Your task to perform on an android device: Show me popular videos on Youtube Image 0: 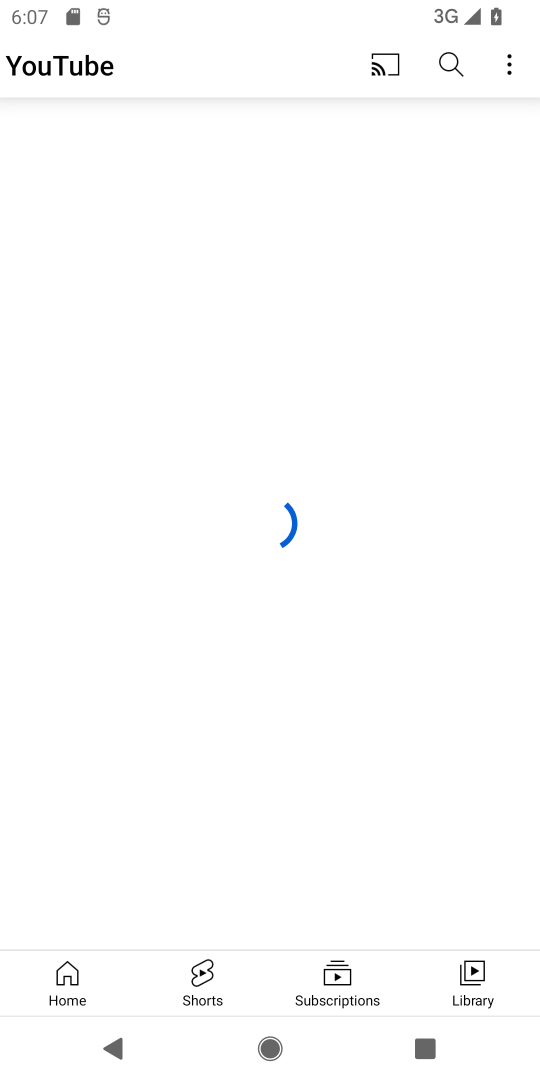
Step 0: press home button
Your task to perform on an android device: Show me popular videos on Youtube Image 1: 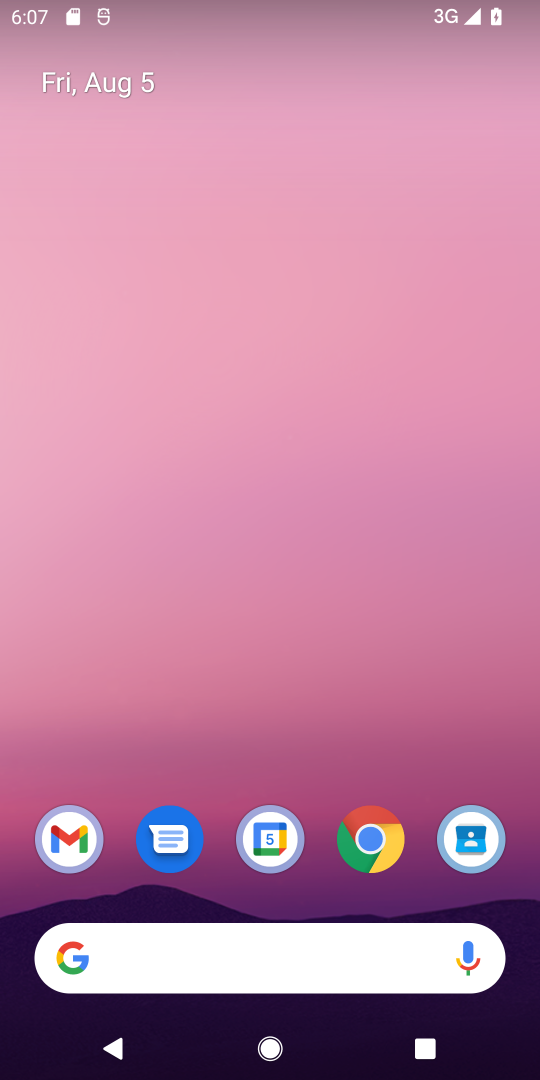
Step 1: drag from (300, 769) to (267, 170)
Your task to perform on an android device: Show me popular videos on Youtube Image 2: 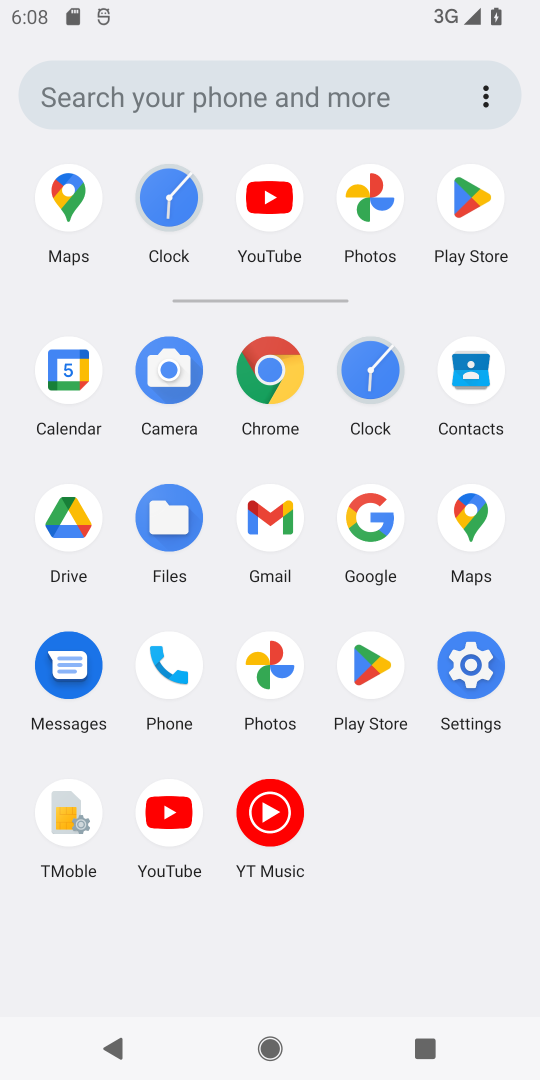
Step 2: click (138, 828)
Your task to perform on an android device: Show me popular videos on Youtube Image 3: 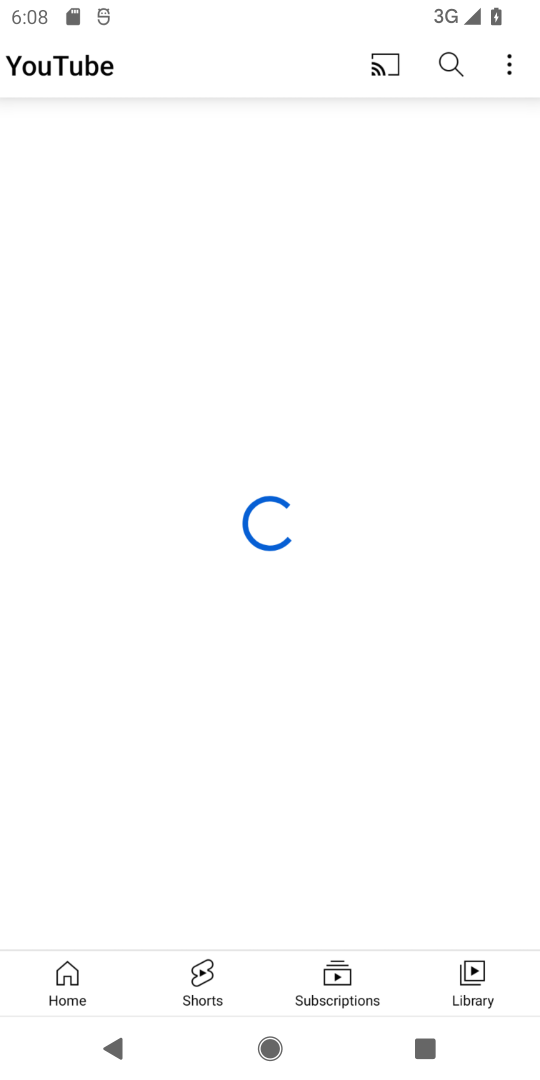
Step 3: click (455, 56)
Your task to perform on an android device: Show me popular videos on Youtube Image 4: 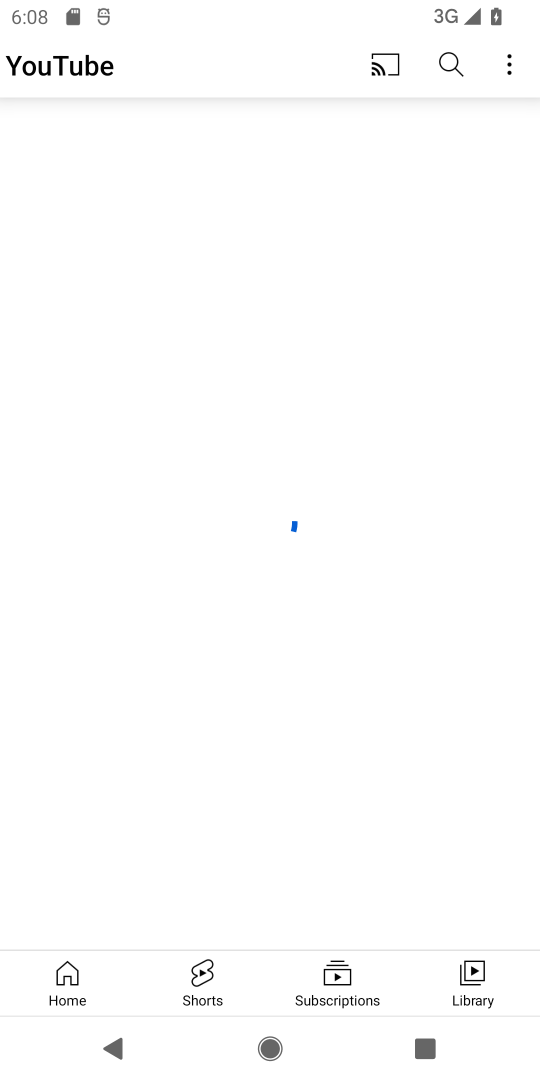
Step 4: click (455, 60)
Your task to perform on an android device: Show me popular videos on Youtube Image 5: 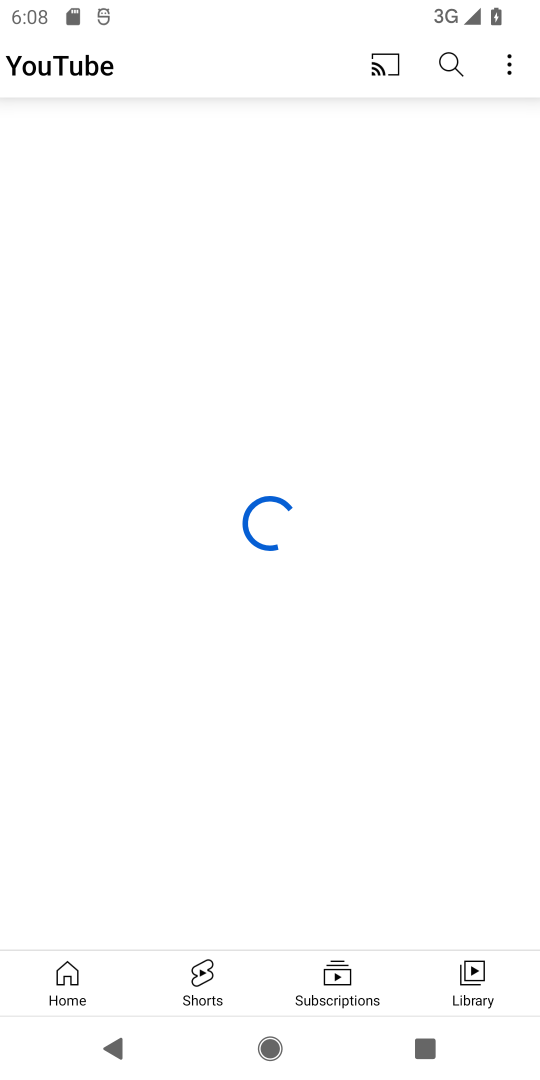
Step 5: click (446, 58)
Your task to perform on an android device: Show me popular videos on Youtube Image 6: 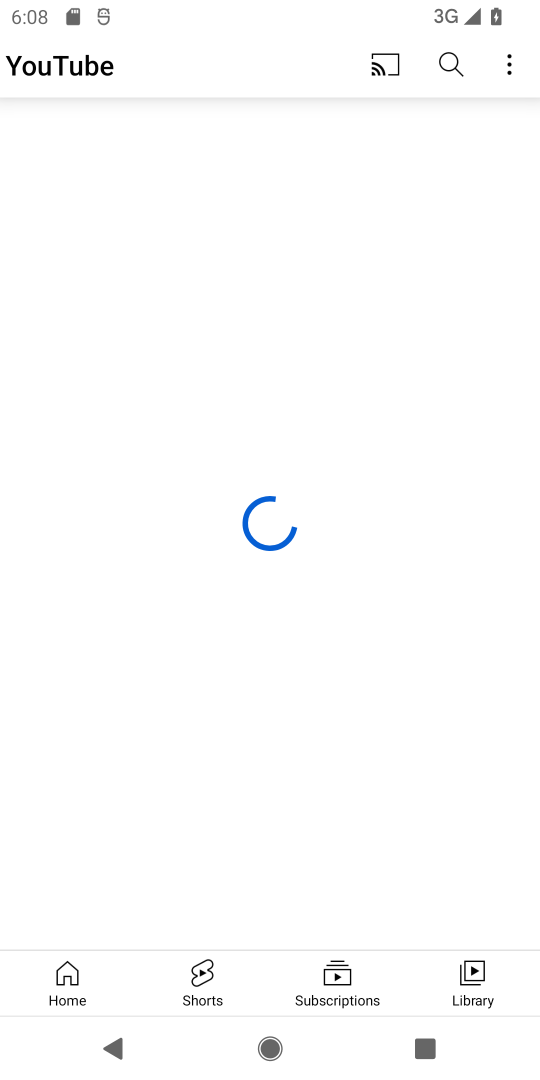
Step 6: click (454, 70)
Your task to perform on an android device: Show me popular videos on Youtube Image 7: 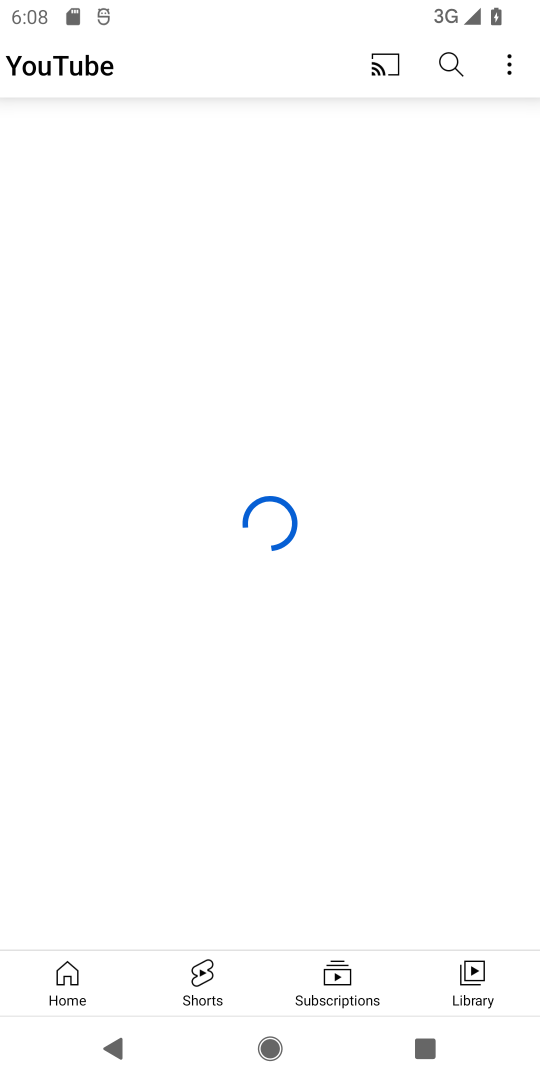
Step 7: click (454, 70)
Your task to perform on an android device: Show me popular videos on Youtube Image 8: 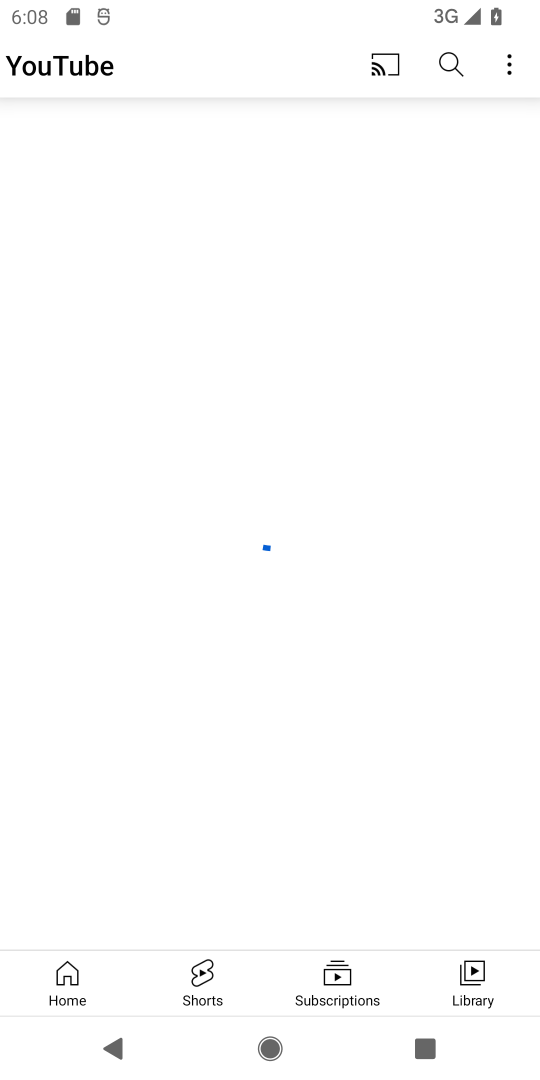
Step 8: click (74, 961)
Your task to perform on an android device: Show me popular videos on Youtube Image 9: 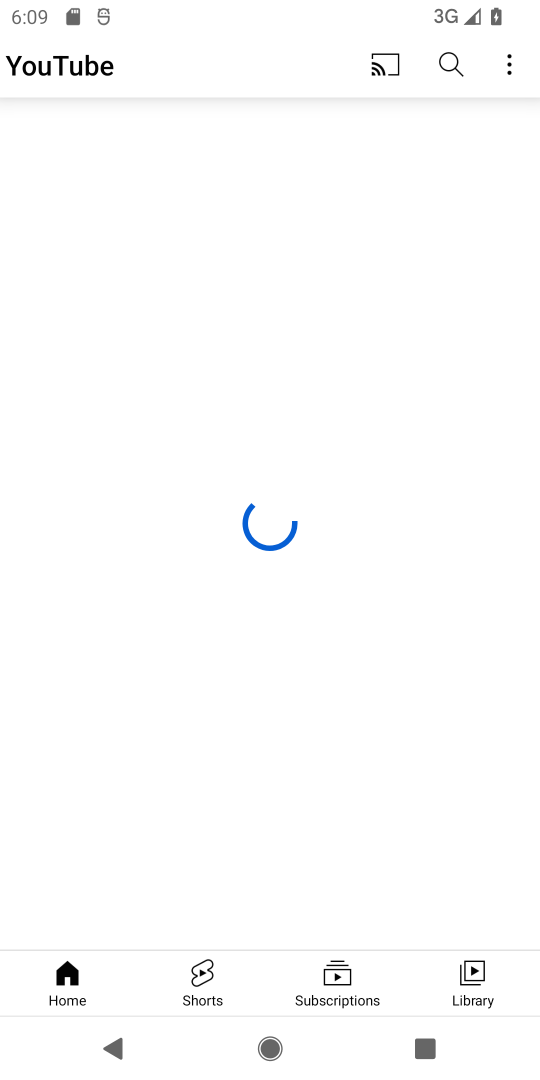
Step 9: click (468, 69)
Your task to perform on an android device: Show me popular videos on Youtube Image 10: 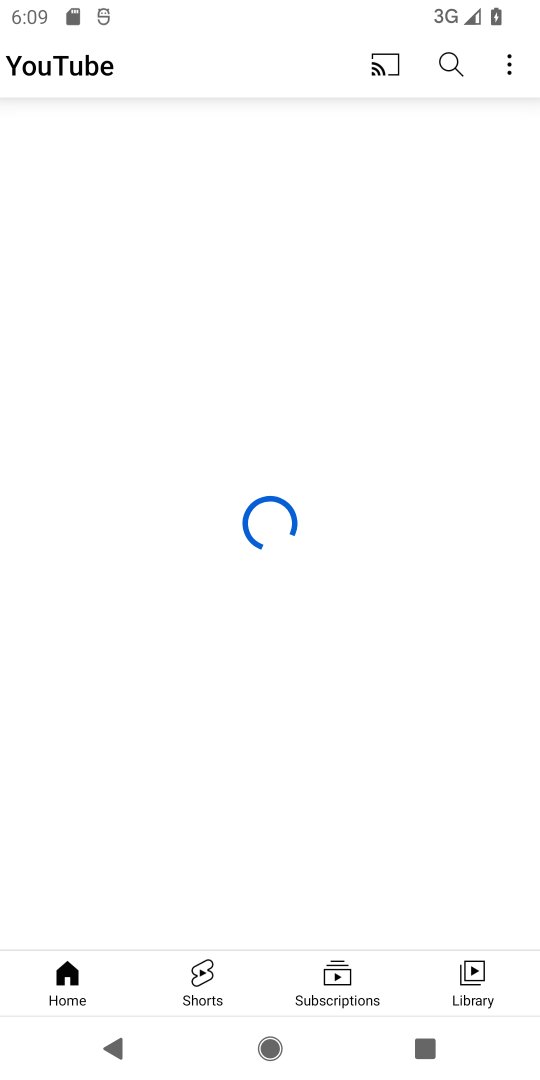
Step 10: task complete